Your task to perform on an android device: Go to Google maps Image 0: 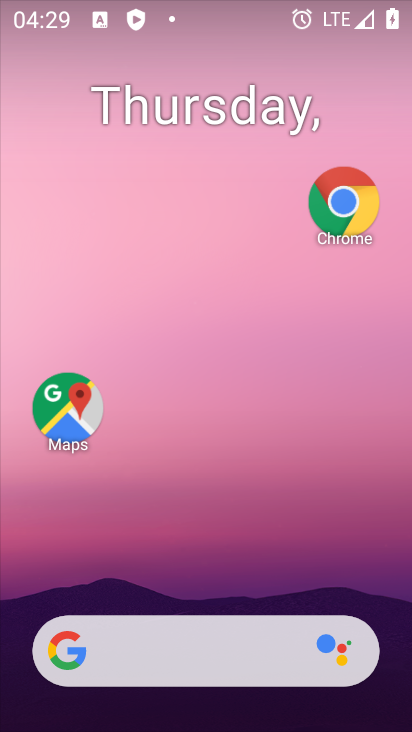
Step 0: drag from (158, 628) to (333, 8)
Your task to perform on an android device: Go to Google maps Image 1: 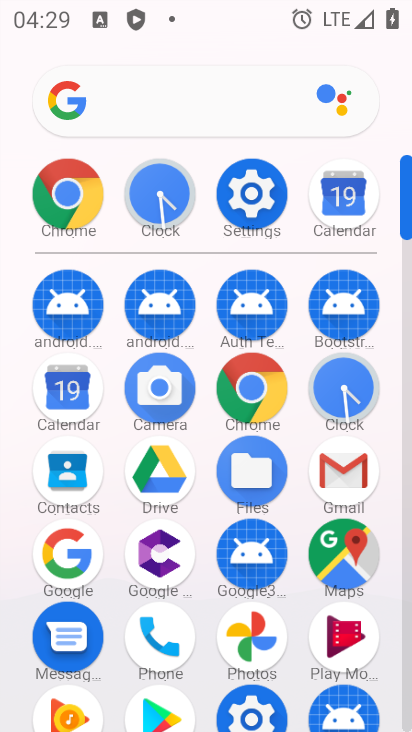
Step 1: click (338, 546)
Your task to perform on an android device: Go to Google maps Image 2: 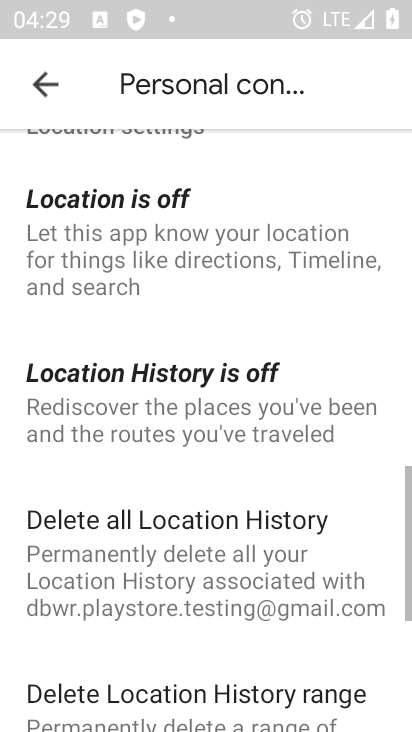
Step 2: press back button
Your task to perform on an android device: Go to Google maps Image 3: 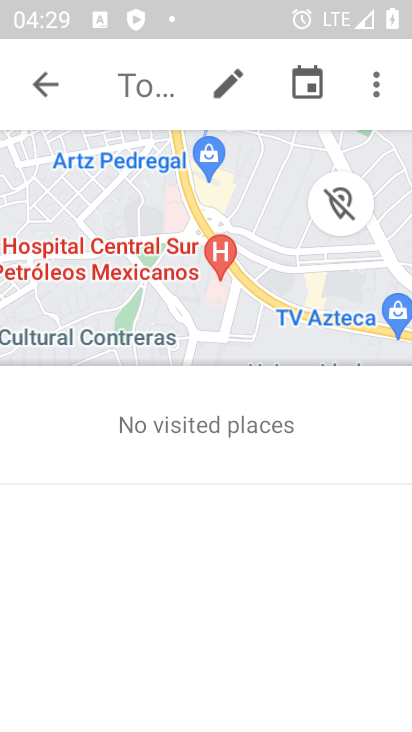
Step 3: press back button
Your task to perform on an android device: Go to Google maps Image 4: 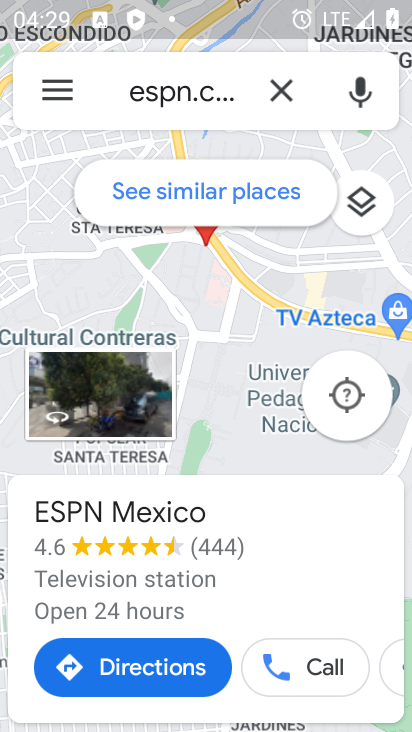
Step 4: click (276, 91)
Your task to perform on an android device: Go to Google maps Image 5: 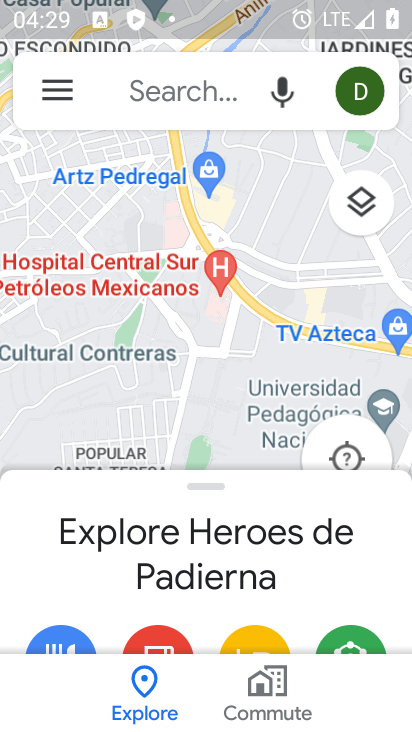
Step 5: task complete